Your task to perform on an android device: add a contact in the contacts app Image 0: 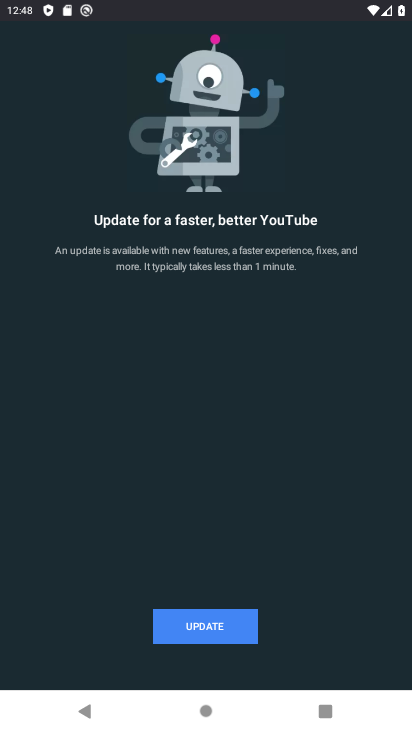
Step 0: press home button
Your task to perform on an android device: add a contact in the contacts app Image 1: 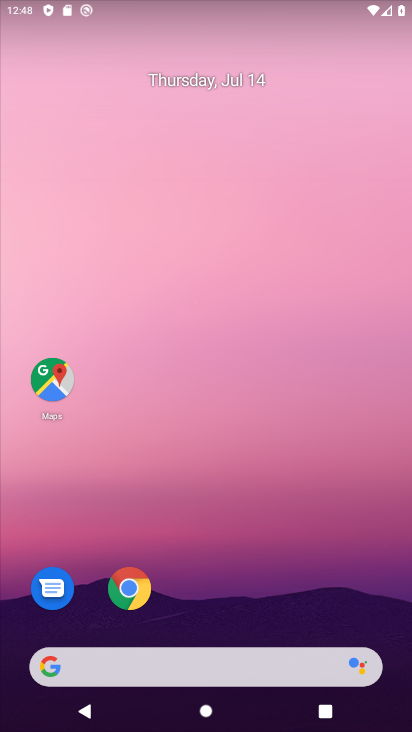
Step 1: drag from (152, 702) to (267, 137)
Your task to perform on an android device: add a contact in the contacts app Image 2: 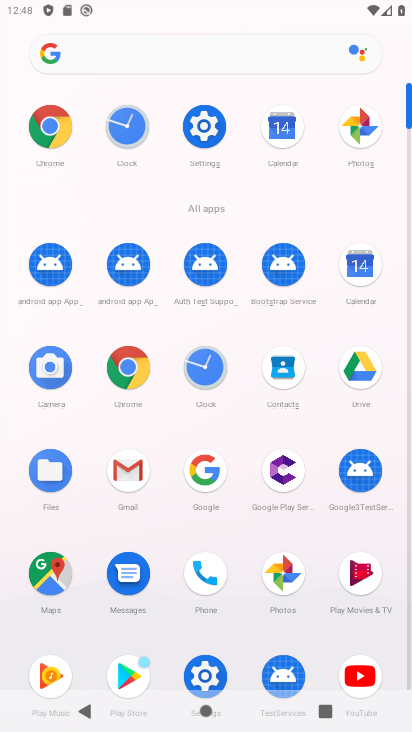
Step 2: click (284, 369)
Your task to perform on an android device: add a contact in the contacts app Image 3: 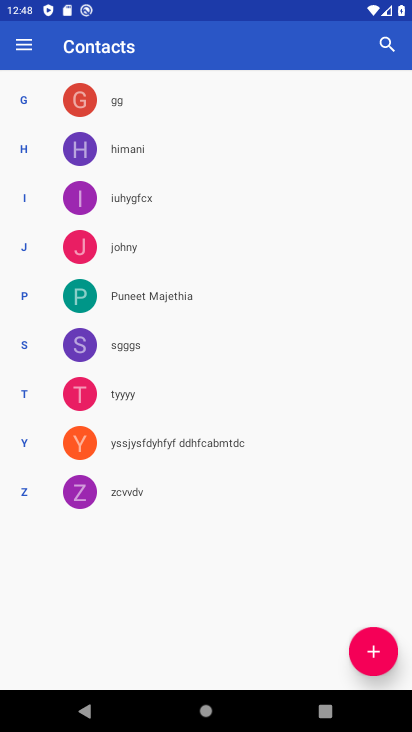
Step 3: click (380, 657)
Your task to perform on an android device: add a contact in the contacts app Image 4: 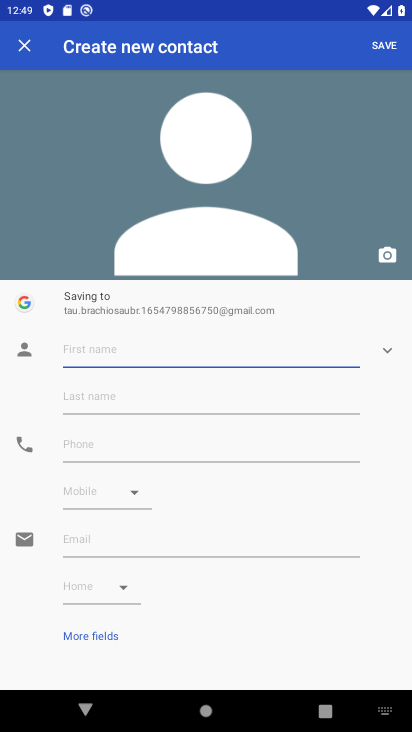
Step 4: type "hgfjvkj"
Your task to perform on an android device: add a contact in the contacts app Image 5: 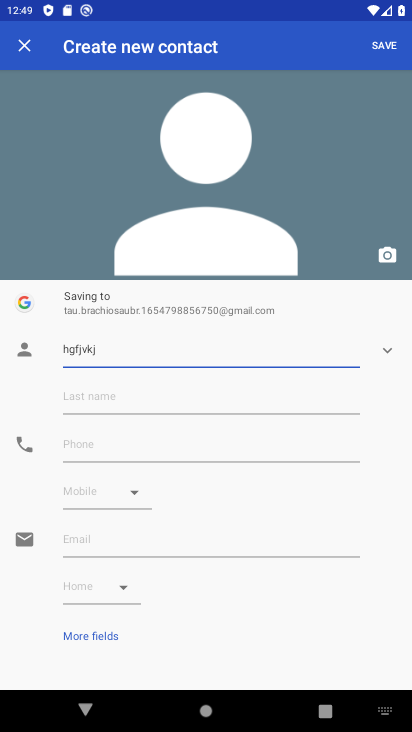
Step 5: click (243, 447)
Your task to perform on an android device: add a contact in the contacts app Image 6: 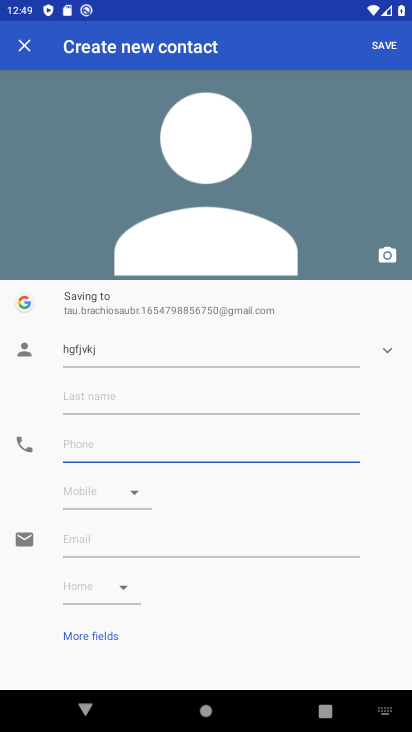
Step 6: type "7869"
Your task to perform on an android device: add a contact in the contacts app Image 7: 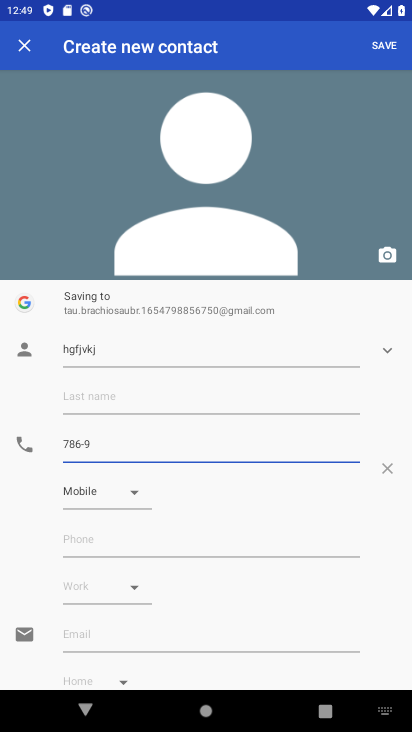
Step 7: click (388, 43)
Your task to perform on an android device: add a contact in the contacts app Image 8: 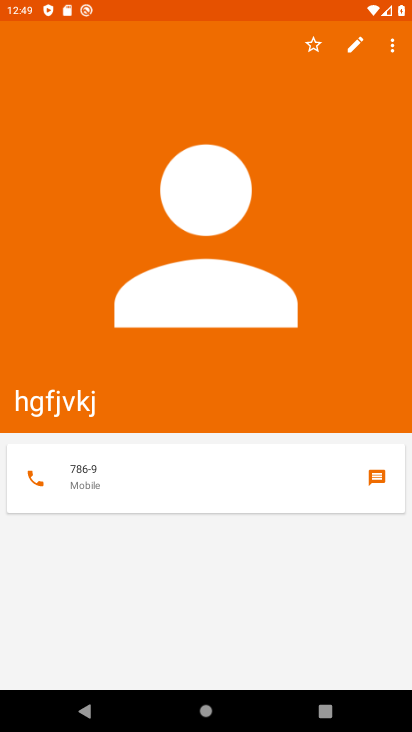
Step 8: task complete